Your task to perform on an android device: When is my next appointment? Image 0: 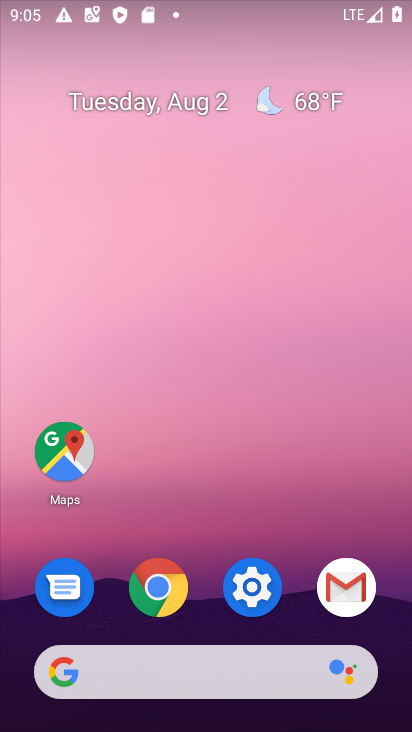
Step 0: drag from (253, 497) to (203, 160)
Your task to perform on an android device: When is my next appointment? Image 1: 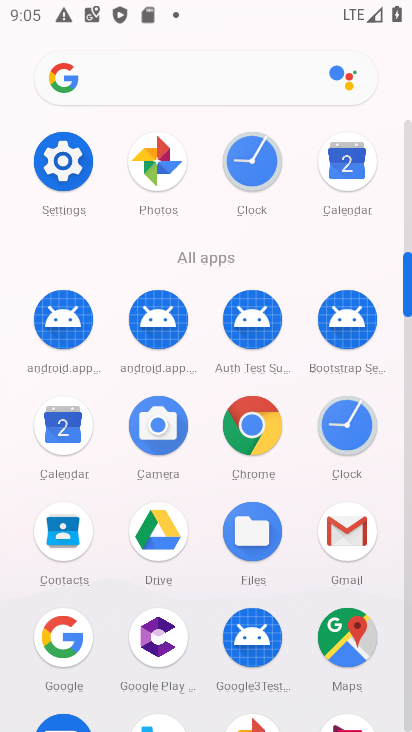
Step 1: click (349, 164)
Your task to perform on an android device: When is my next appointment? Image 2: 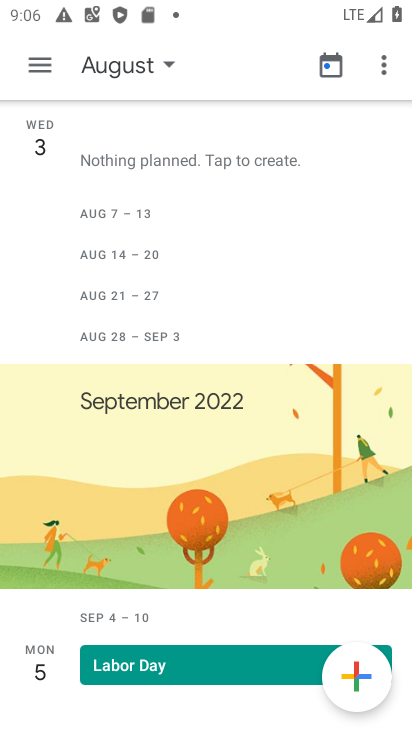
Step 2: click (22, 69)
Your task to perform on an android device: When is my next appointment? Image 3: 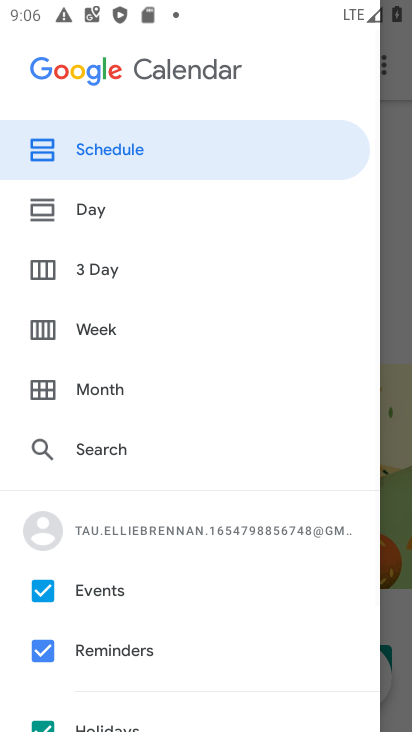
Step 3: click (105, 379)
Your task to perform on an android device: When is my next appointment? Image 4: 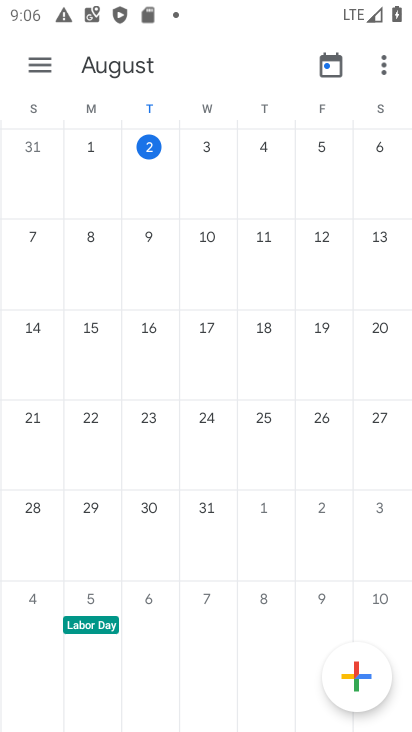
Step 4: click (154, 157)
Your task to perform on an android device: When is my next appointment? Image 5: 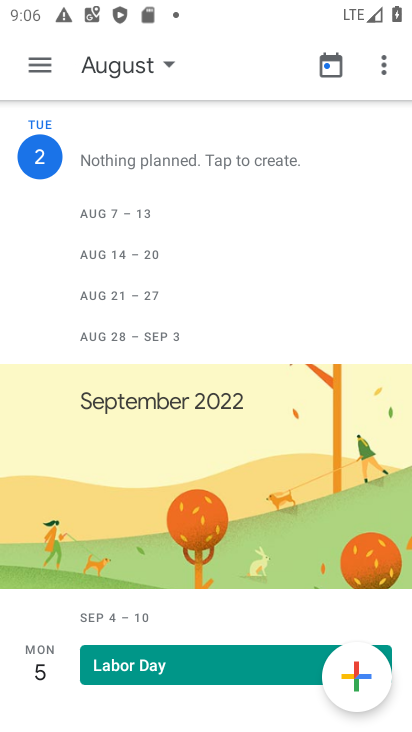
Step 5: task complete